Your task to perform on an android device: Open accessibility settings Image 0: 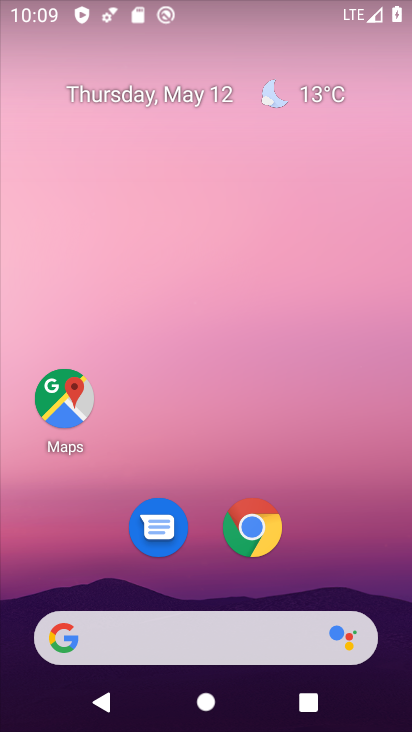
Step 0: drag from (335, 556) to (298, 157)
Your task to perform on an android device: Open accessibility settings Image 1: 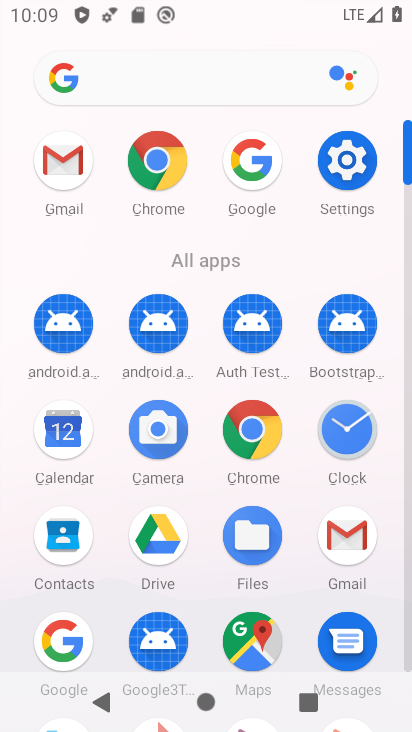
Step 1: click (354, 164)
Your task to perform on an android device: Open accessibility settings Image 2: 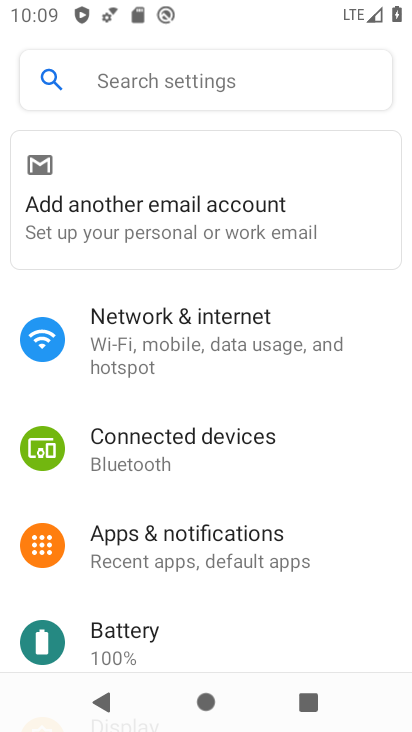
Step 2: drag from (140, 407) to (155, 217)
Your task to perform on an android device: Open accessibility settings Image 3: 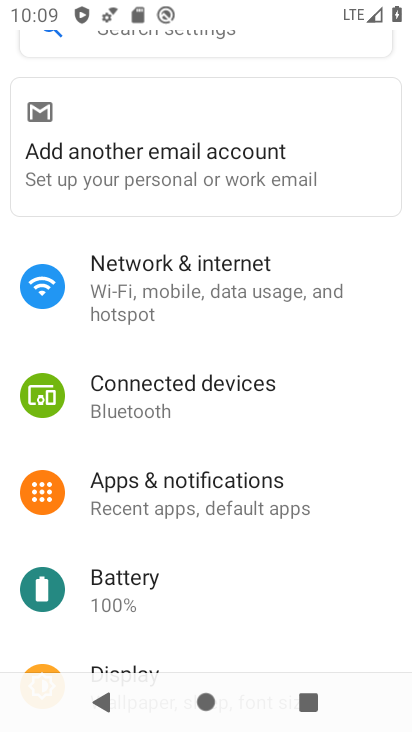
Step 3: drag from (142, 445) to (174, 215)
Your task to perform on an android device: Open accessibility settings Image 4: 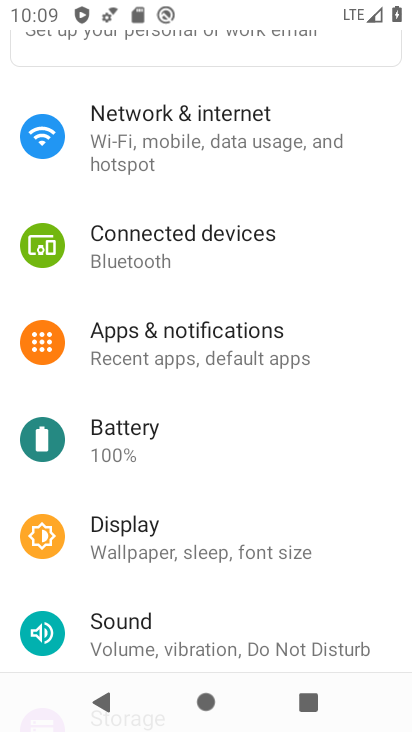
Step 4: drag from (123, 488) to (146, 160)
Your task to perform on an android device: Open accessibility settings Image 5: 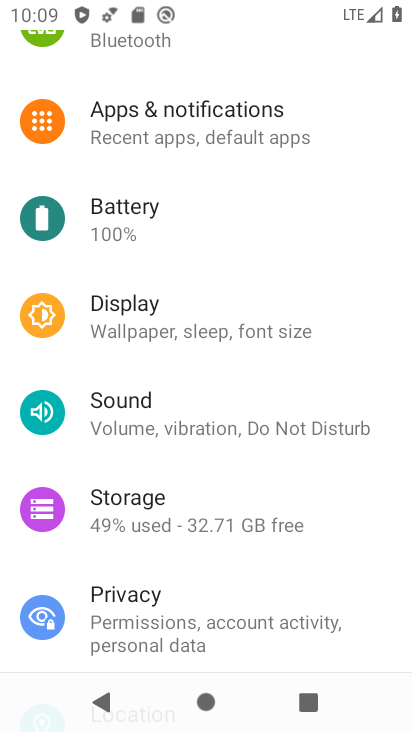
Step 5: drag from (122, 370) to (149, 150)
Your task to perform on an android device: Open accessibility settings Image 6: 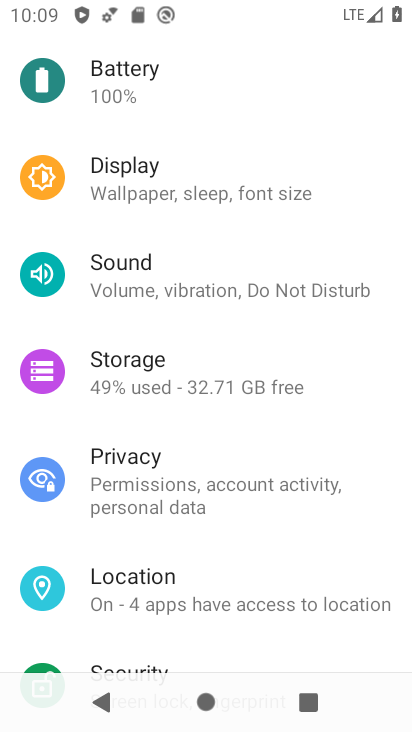
Step 6: drag from (130, 322) to (192, 110)
Your task to perform on an android device: Open accessibility settings Image 7: 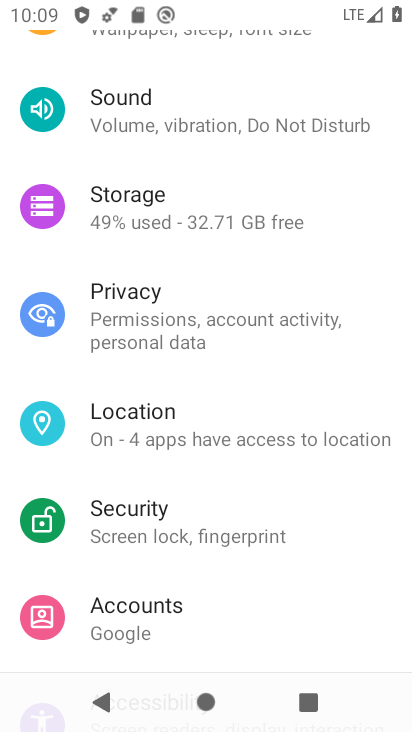
Step 7: drag from (120, 257) to (187, 51)
Your task to perform on an android device: Open accessibility settings Image 8: 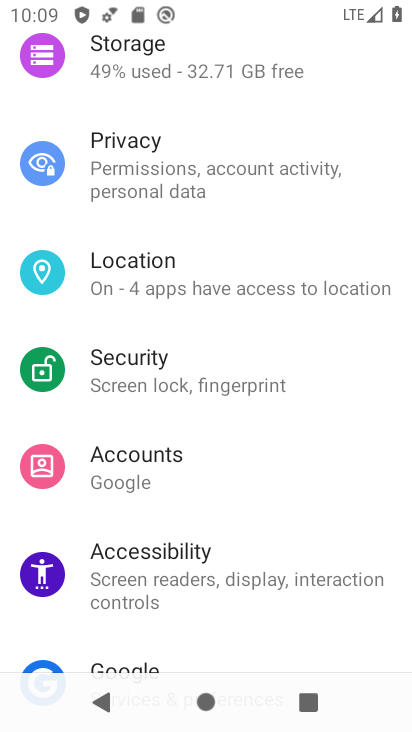
Step 8: drag from (118, 318) to (190, 78)
Your task to perform on an android device: Open accessibility settings Image 9: 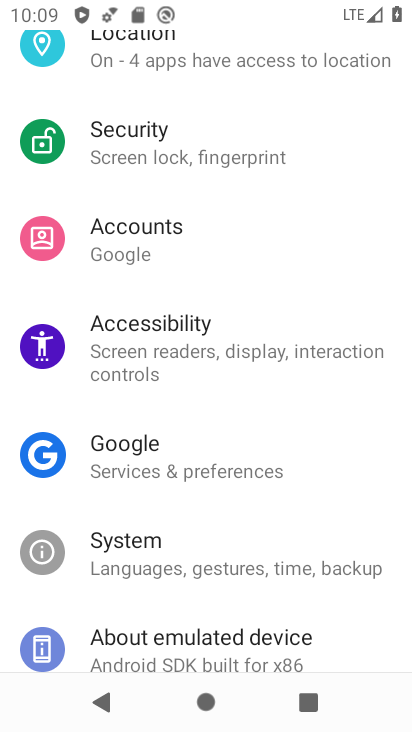
Step 9: click (140, 337)
Your task to perform on an android device: Open accessibility settings Image 10: 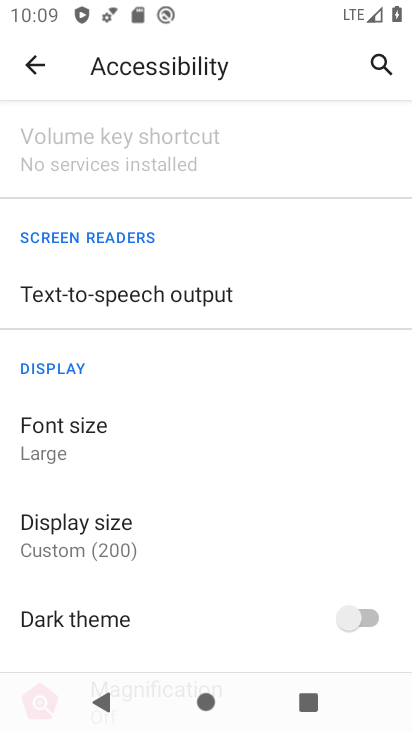
Step 10: task complete